Your task to perform on an android device: Open the stopwatch Image 0: 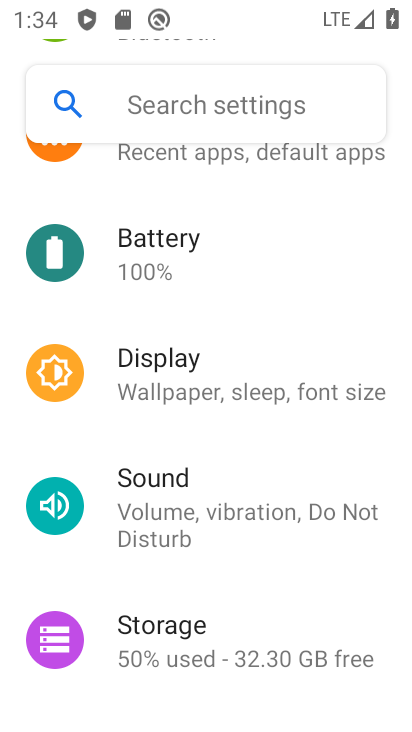
Step 0: press home button
Your task to perform on an android device: Open the stopwatch Image 1: 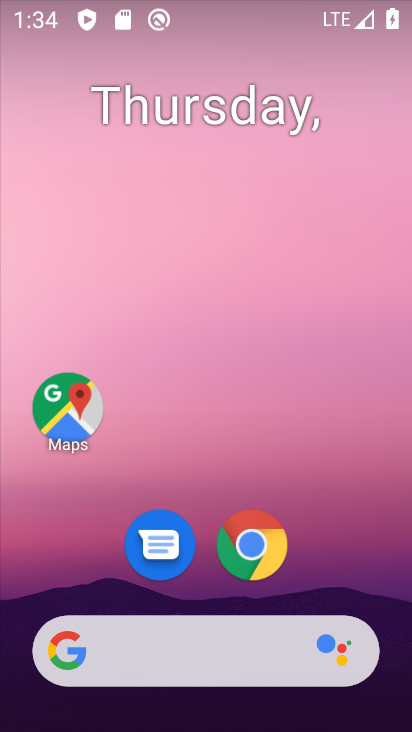
Step 1: drag from (158, 697) to (252, 18)
Your task to perform on an android device: Open the stopwatch Image 2: 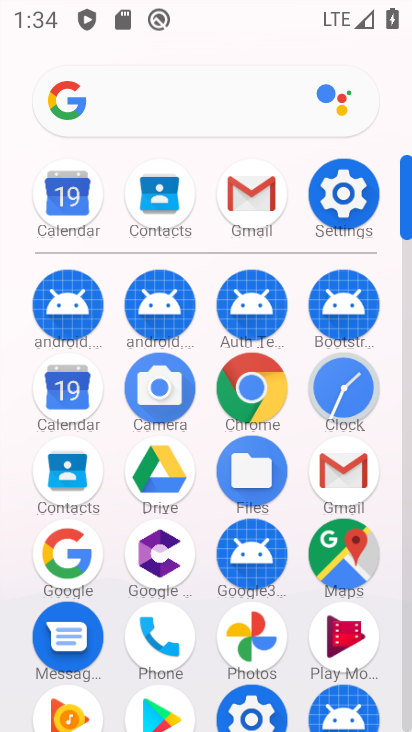
Step 2: click (344, 386)
Your task to perform on an android device: Open the stopwatch Image 3: 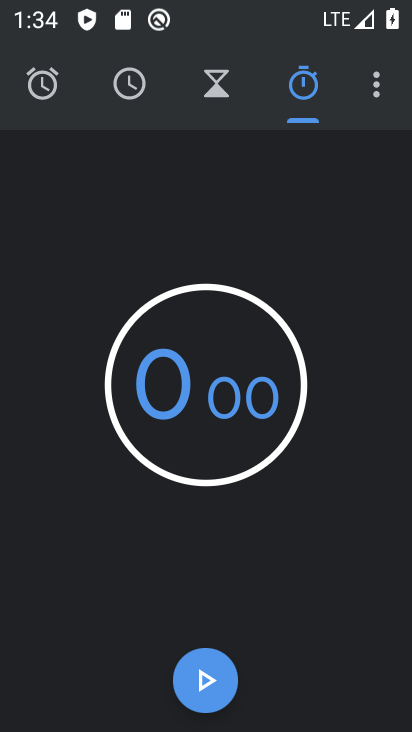
Step 3: task complete